Your task to perform on an android device: Find coffee shops on Maps Image 0: 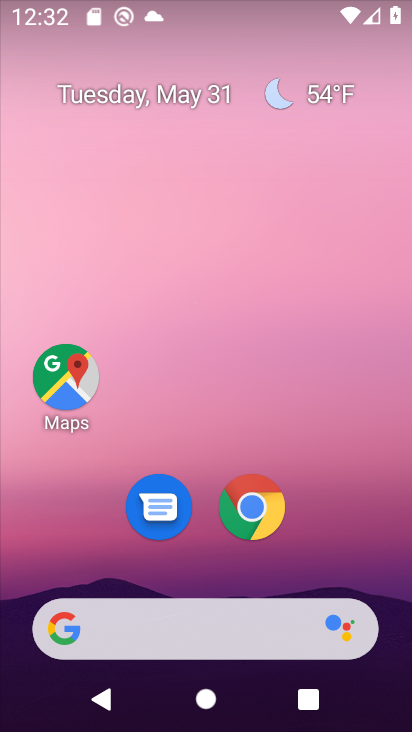
Step 0: drag from (233, 696) to (121, 263)
Your task to perform on an android device: Find coffee shops on Maps Image 1: 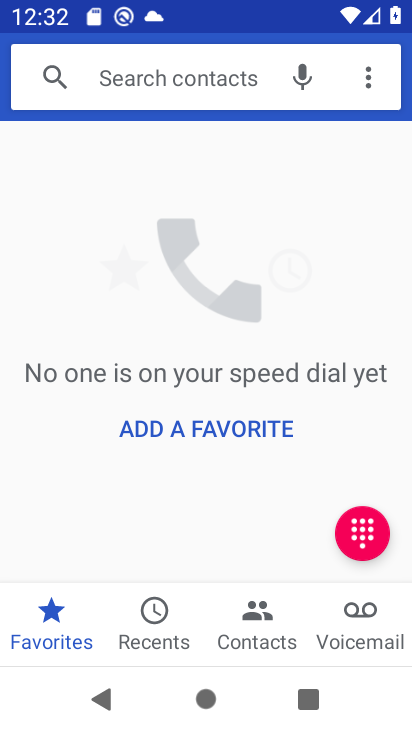
Step 1: press home button
Your task to perform on an android device: Find coffee shops on Maps Image 2: 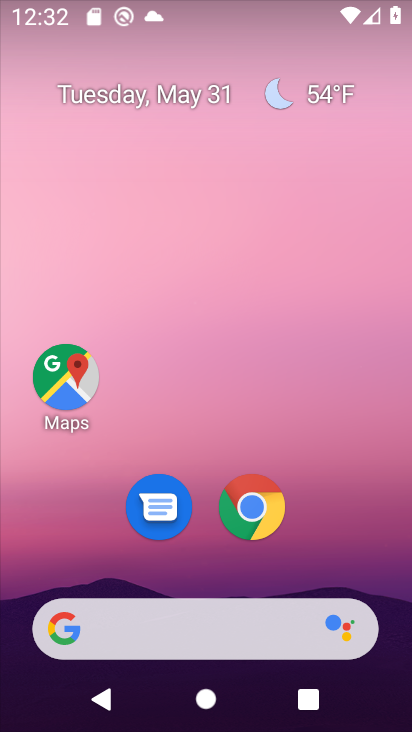
Step 2: drag from (247, 502) to (198, 198)
Your task to perform on an android device: Find coffee shops on Maps Image 3: 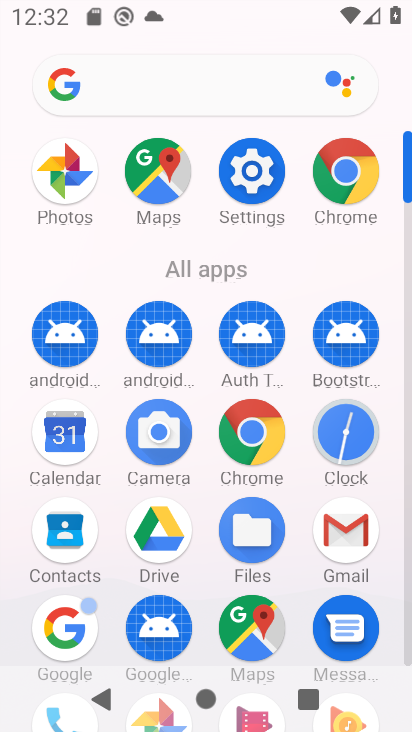
Step 3: click (246, 636)
Your task to perform on an android device: Find coffee shops on Maps Image 4: 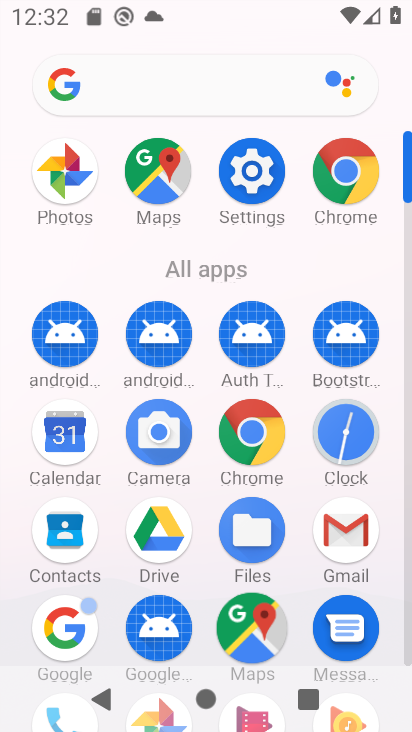
Step 4: click (248, 632)
Your task to perform on an android device: Find coffee shops on Maps Image 5: 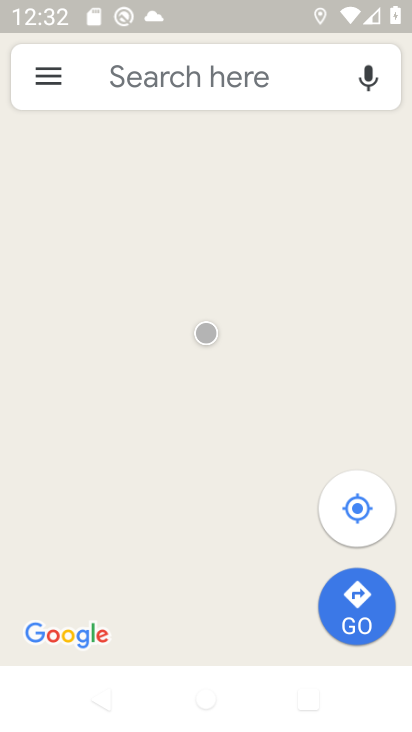
Step 5: click (111, 73)
Your task to perform on an android device: Find coffee shops on Maps Image 6: 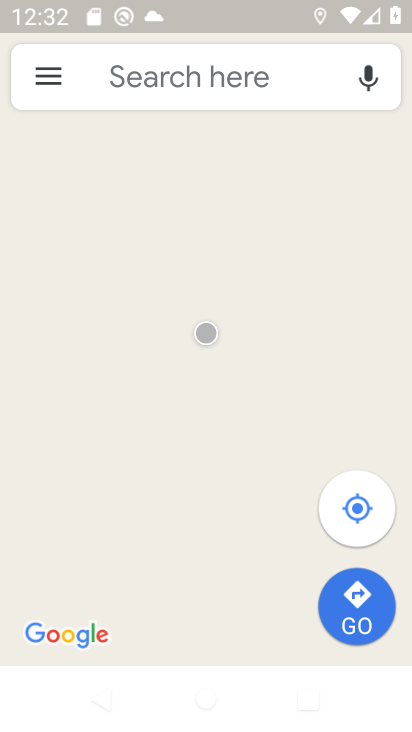
Step 6: click (130, 79)
Your task to perform on an android device: Find coffee shops on Maps Image 7: 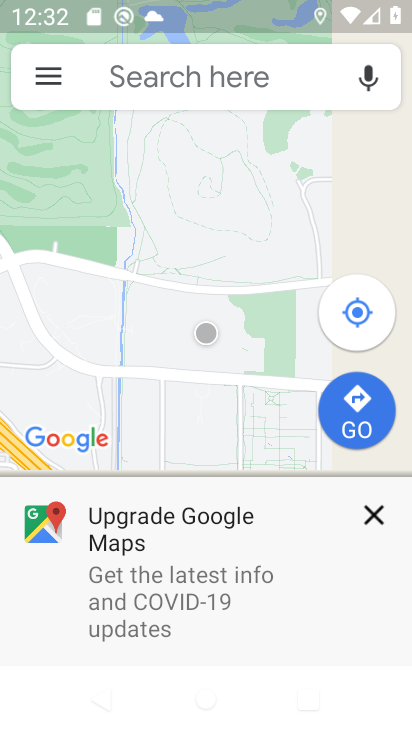
Step 7: click (132, 82)
Your task to perform on an android device: Find coffee shops on Maps Image 8: 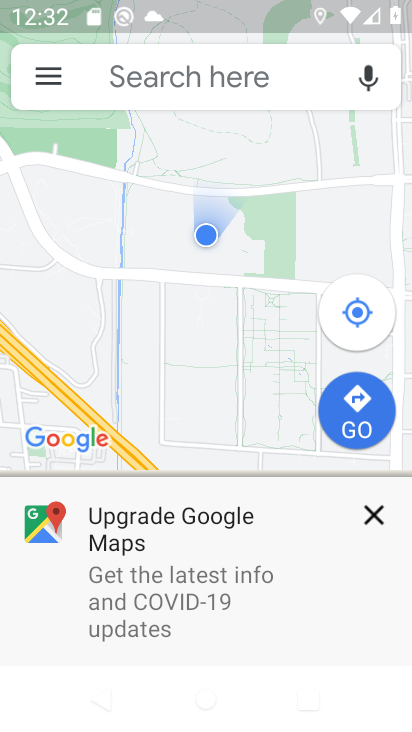
Step 8: click (132, 82)
Your task to perform on an android device: Find coffee shops on Maps Image 9: 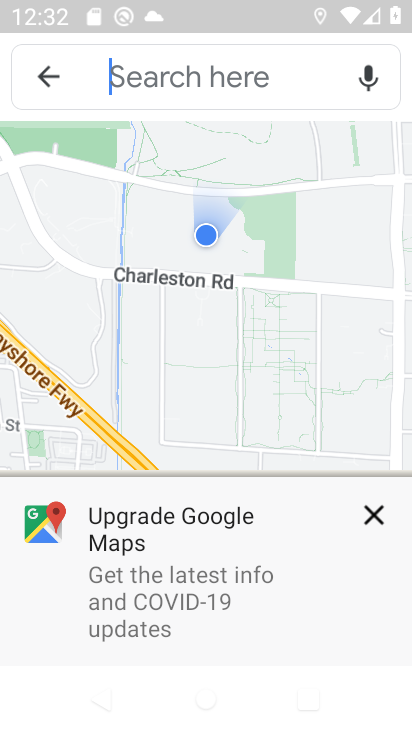
Step 9: click (115, 82)
Your task to perform on an android device: Find coffee shops on Maps Image 10: 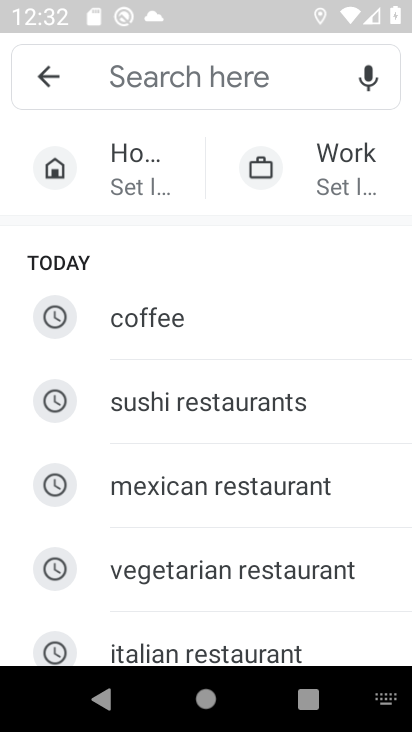
Step 10: type "coffee"
Your task to perform on an android device: Find coffee shops on Maps Image 11: 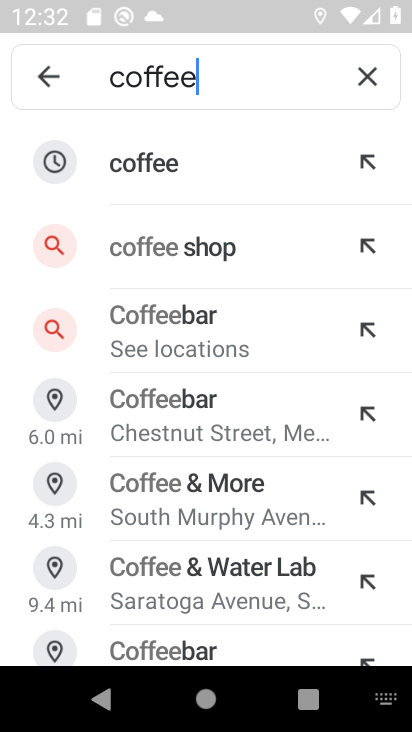
Step 11: click (149, 161)
Your task to perform on an android device: Find coffee shops on Maps Image 12: 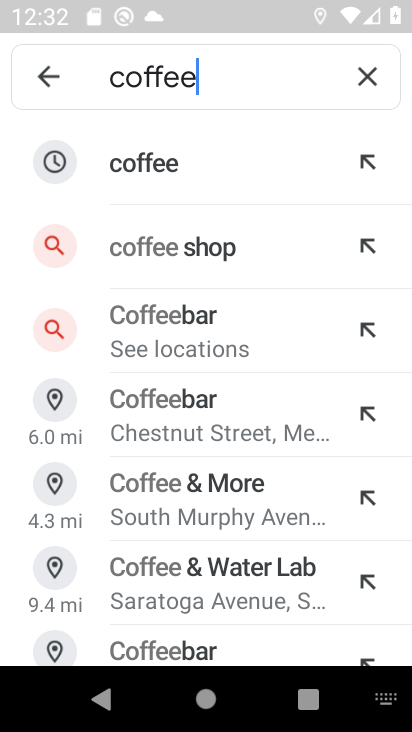
Step 12: click (149, 161)
Your task to perform on an android device: Find coffee shops on Maps Image 13: 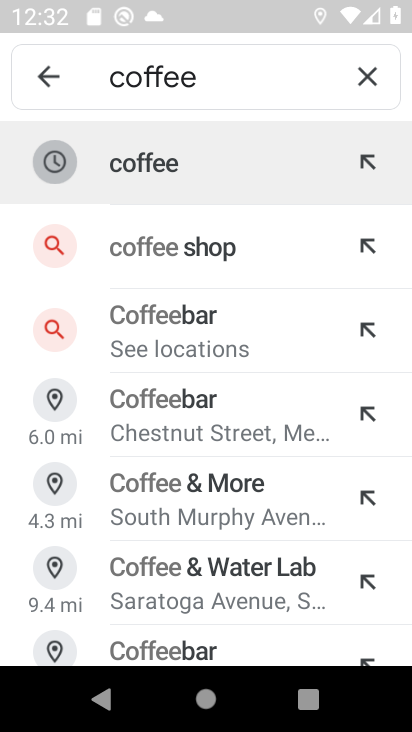
Step 13: click (149, 161)
Your task to perform on an android device: Find coffee shops on Maps Image 14: 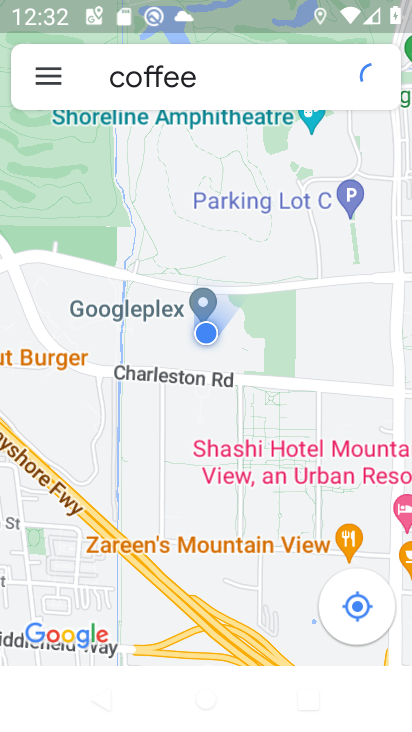
Step 14: task complete